Your task to perform on an android device: turn off notifications in google photos Image 0: 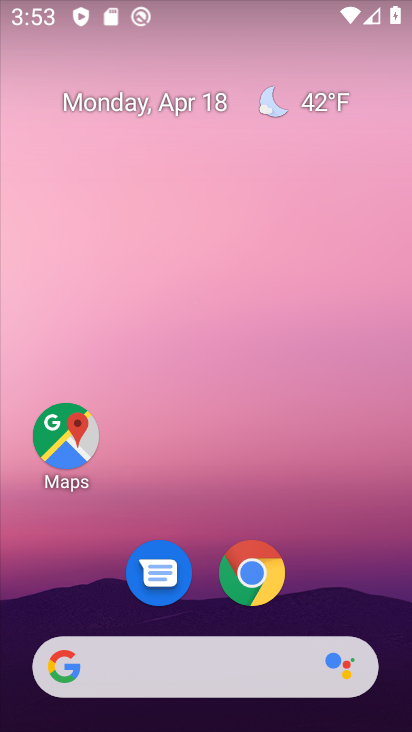
Step 0: drag from (190, 591) to (250, 86)
Your task to perform on an android device: turn off notifications in google photos Image 1: 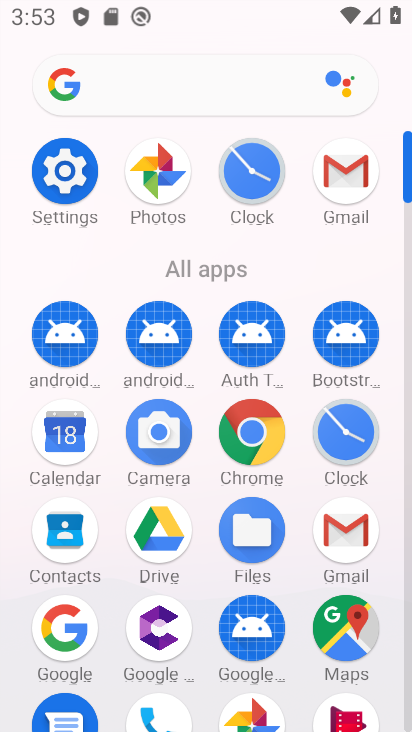
Step 1: click (157, 174)
Your task to perform on an android device: turn off notifications in google photos Image 2: 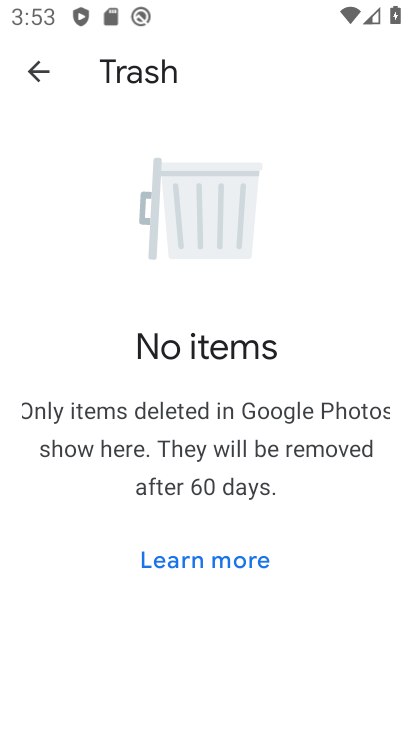
Step 2: click (40, 62)
Your task to perform on an android device: turn off notifications in google photos Image 3: 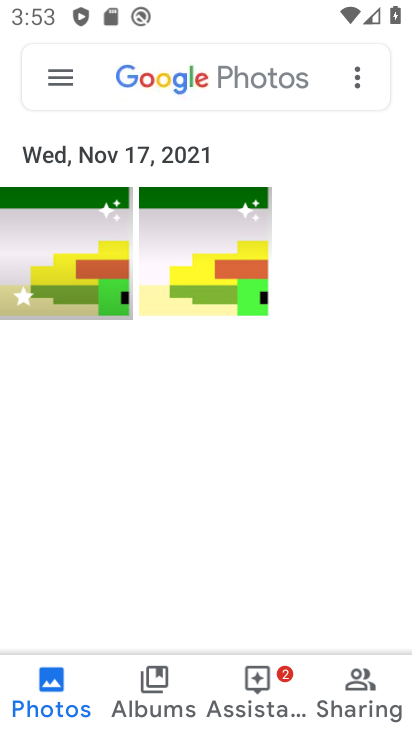
Step 3: click (62, 74)
Your task to perform on an android device: turn off notifications in google photos Image 4: 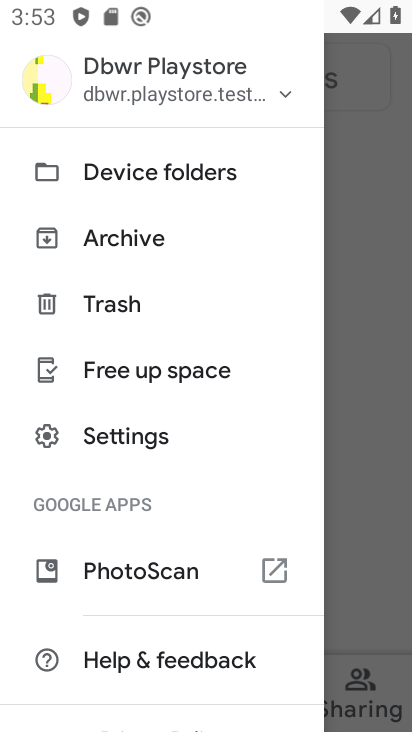
Step 4: click (136, 435)
Your task to perform on an android device: turn off notifications in google photos Image 5: 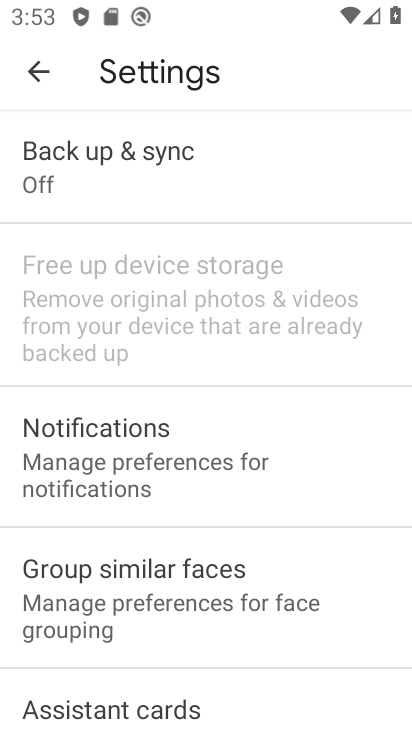
Step 5: click (76, 455)
Your task to perform on an android device: turn off notifications in google photos Image 6: 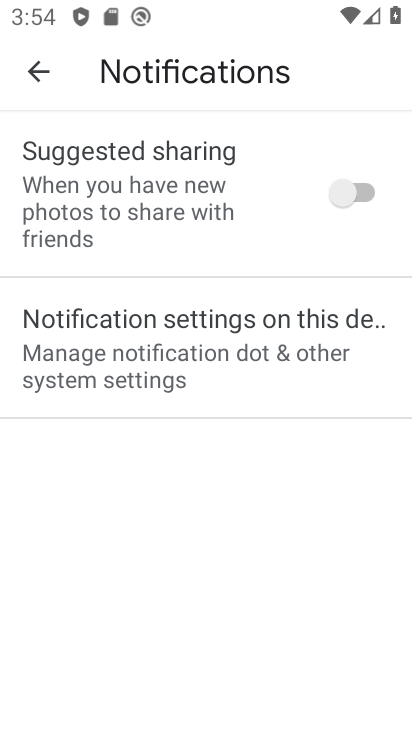
Step 6: click (149, 317)
Your task to perform on an android device: turn off notifications in google photos Image 7: 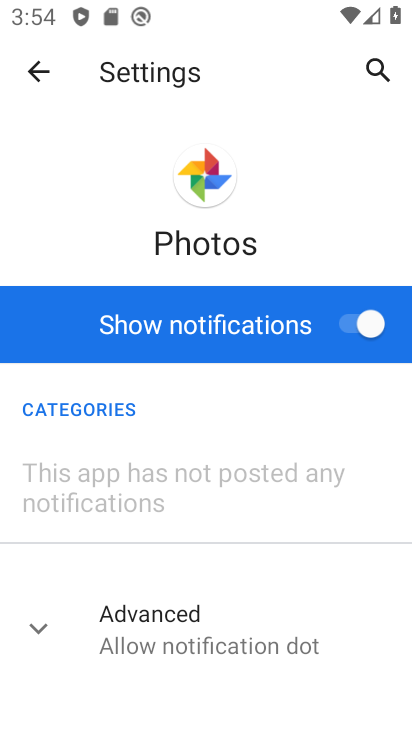
Step 7: click (343, 321)
Your task to perform on an android device: turn off notifications in google photos Image 8: 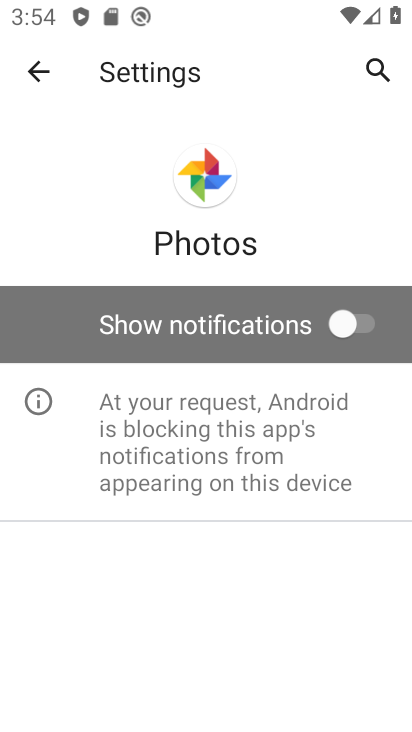
Step 8: task complete